Your task to perform on an android device: clear all cookies in the chrome app Image 0: 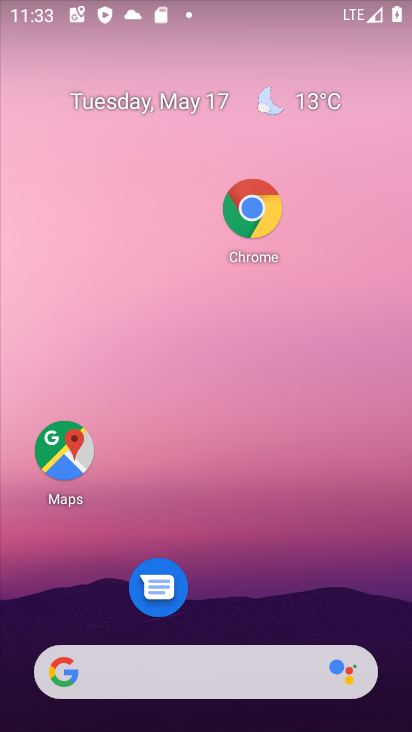
Step 0: click (253, 211)
Your task to perform on an android device: clear all cookies in the chrome app Image 1: 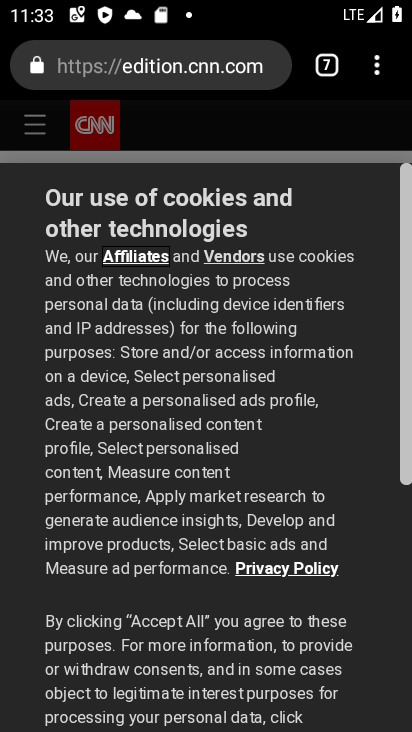
Step 1: click (376, 74)
Your task to perform on an android device: clear all cookies in the chrome app Image 2: 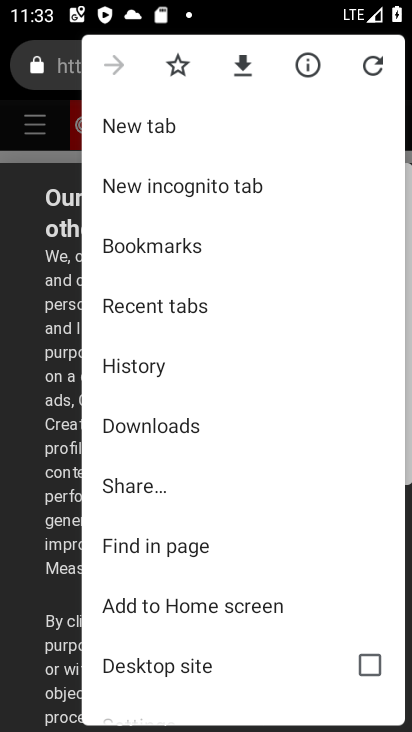
Step 2: drag from (266, 586) to (397, 21)
Your task to perform on an android device: clear all cookies in the chrome app Image 3: 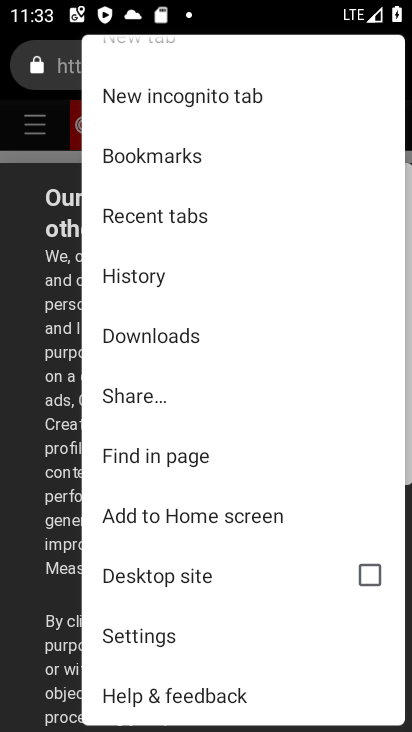
Step 3: click (155, 650)
Your task to perform on an android device: clear all cookies in the chrome app Image 4: 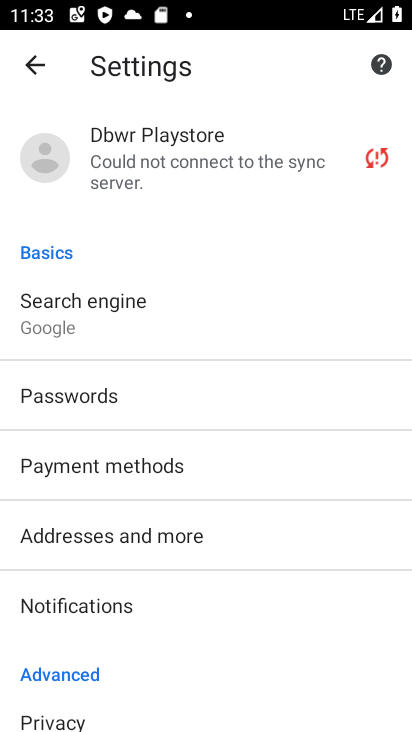
Step 4: drag from (157, 655) to (275, 273)
Your task to perform on an android device: clear all cookies in the chrome app Image 5: 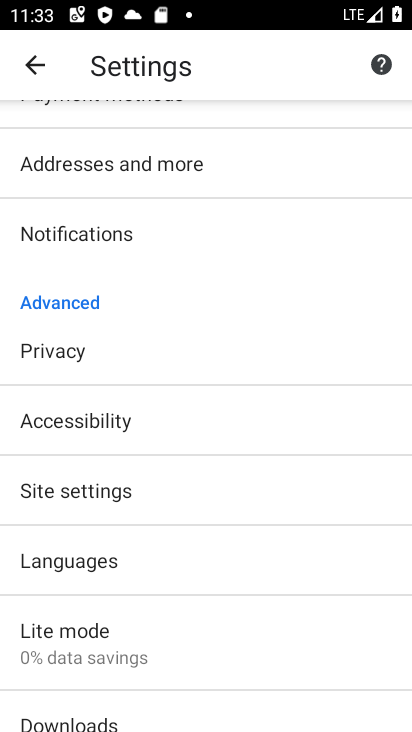
Step 5: click (135, 499)
Your task to perform on an android device: clear all cookies in the chrome app Image 6: 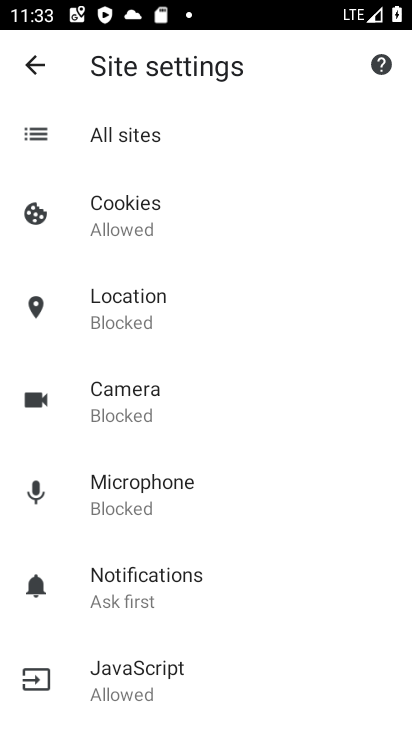
Step 6: click (123, 203)
Your task to perform on an android device: clear all cookies in the chrome app Image 7: 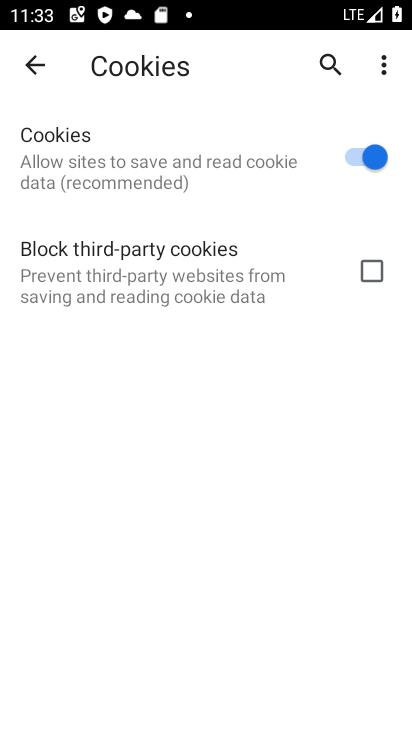
Step 7: click (374, 61)
Your task to perform on an android device: clear all cookies in the chrome app Image 8: 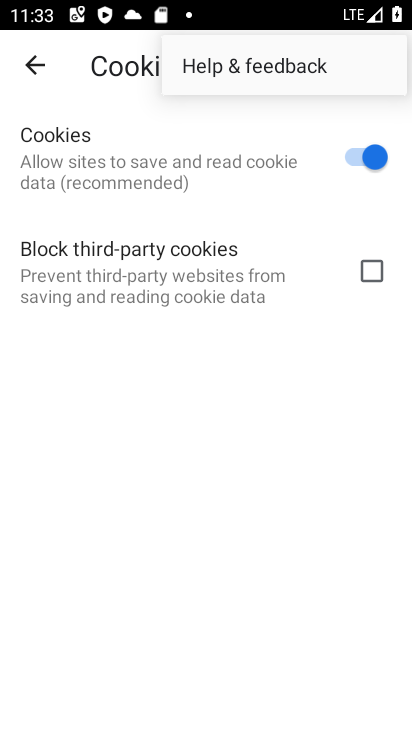
Step 8: press back button
Your task to perform on an android device: clear all cookies in the chrome app Image 9: 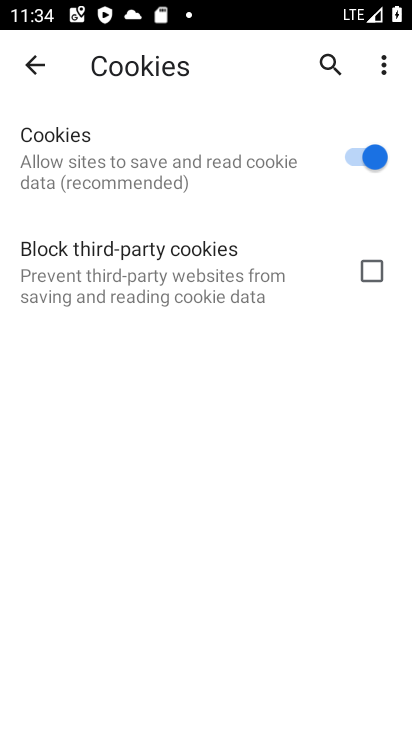
Step 9: press back button
Your task to perform on an android device: clear all cookies in the chrome app Image 10: 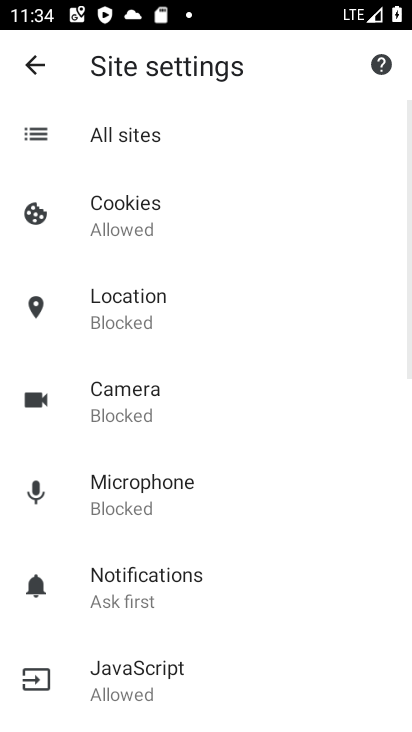
Step 10: press back button
Your task to perform on an android device: clear all cookies in the chrome app Image 11: 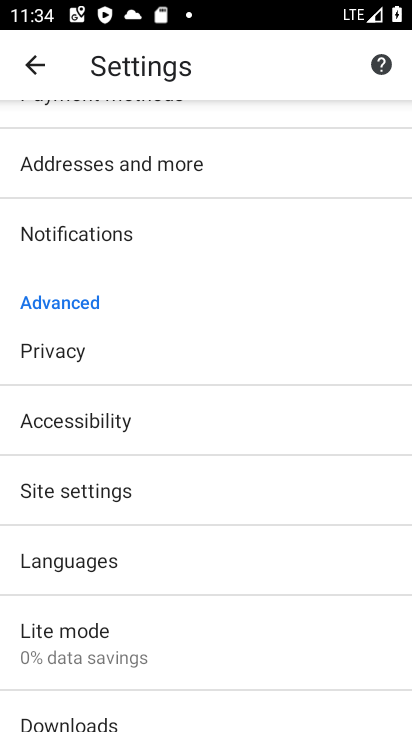
Step 11: drag from (274, 514) to (313, 139)
Your task to perform on an android device: clear all cookies in the chrome app Image 12: 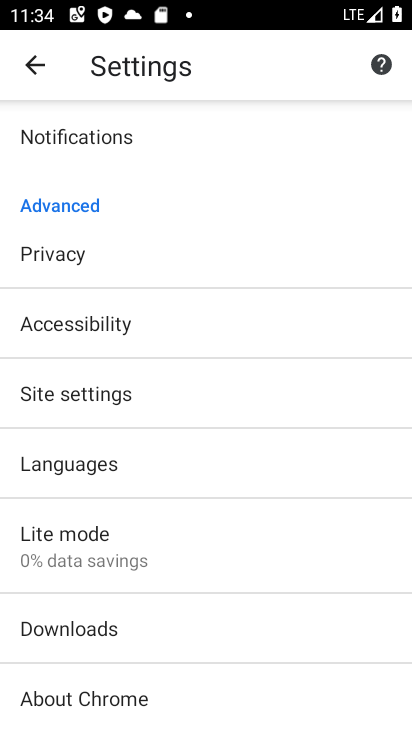
Step 12: drag from (275, 646) to (308, 458)
Your task to perform on an android device: clear all cookies in the chrome app Image 13: 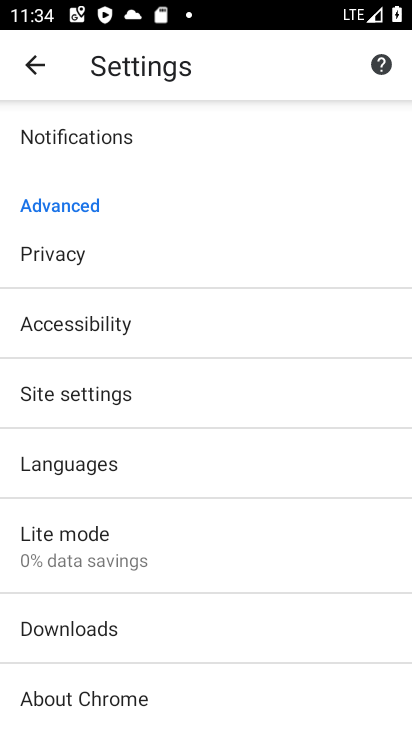
Step 13: drag from (221, 659) to (257, 404)
Your task to perform on an android device: clear all cookies in the chrome app Image 14: 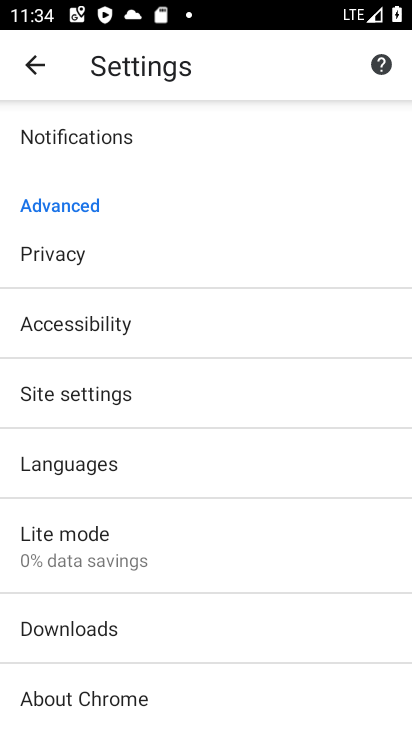
Step 14: click (166, 328)
Your task to perform on an android device: clear all cookies in the chrome app Image 15: 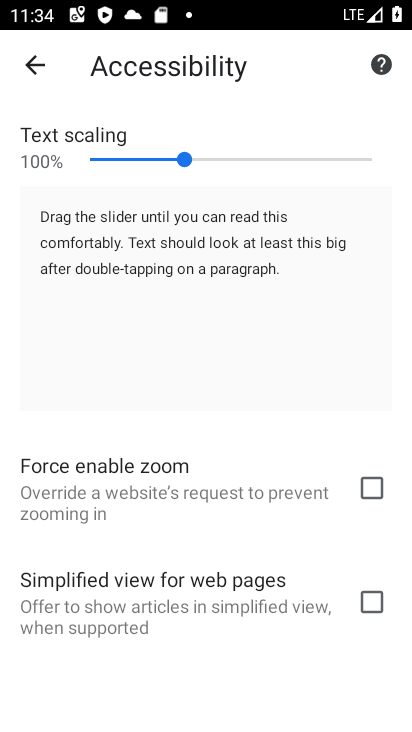
Step 15: drag from (237, 634) to (291, 302)
Your task to perform on an android device: clear all cookies in the chrome app Image 16: 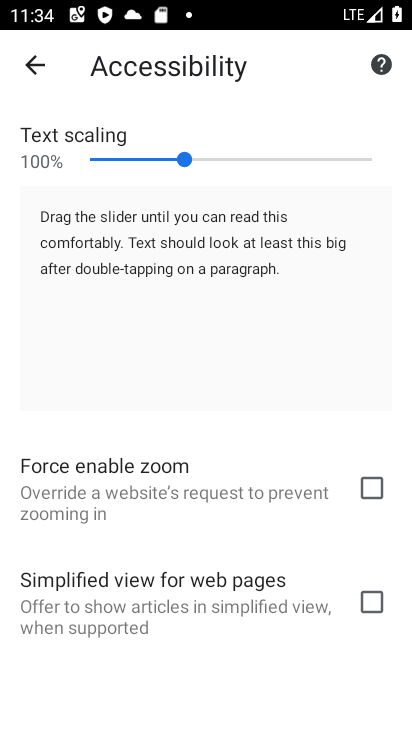
Step 16: press back button
Your task to perform on an android device: clear all cookies in the chrome app Image 17: 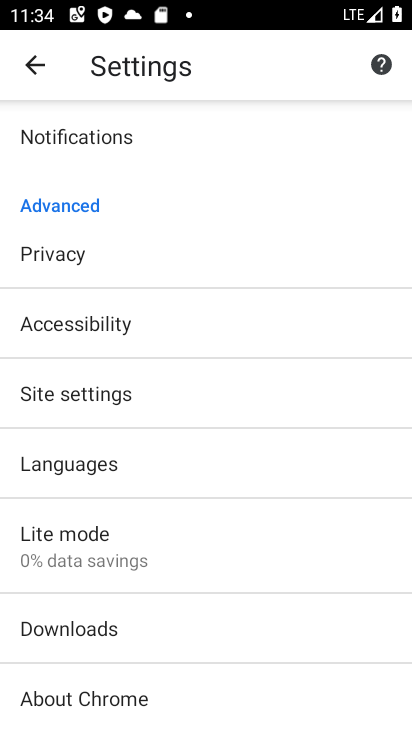
Step 17: click (267, 269)
Your task to perform on an android device: clear all cookies in the chrome app Image 18: 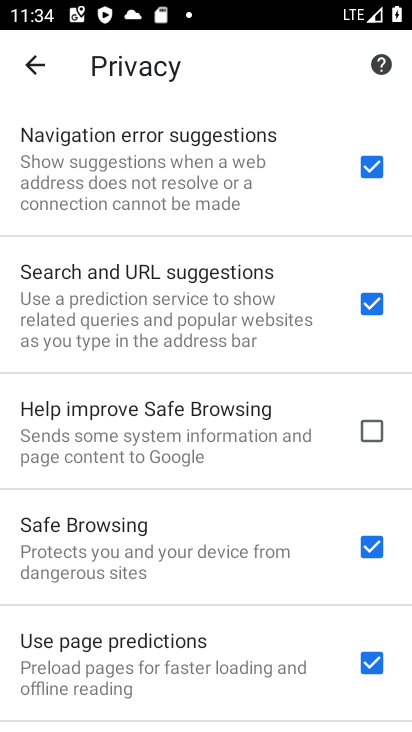
Step 18: drag from (119, 557) to (201, 178)
Your task to perform on an android device: clear all cookies in the chrome app Image 19: 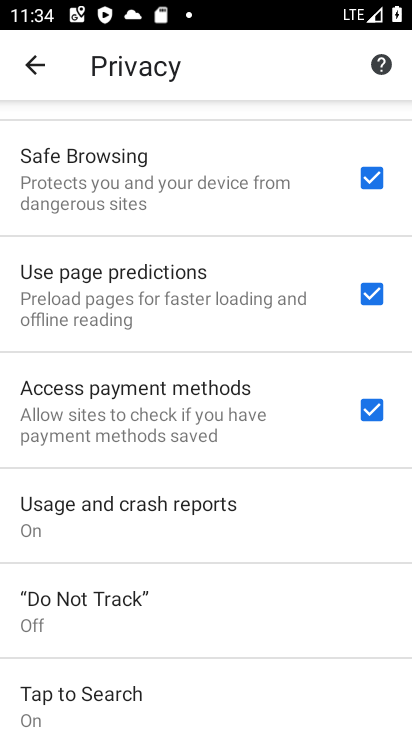
Step 19: drag from (86, 621) to (217, 282)
Your task to perform on an android device: clear all cookies in the chrome app Image 20: 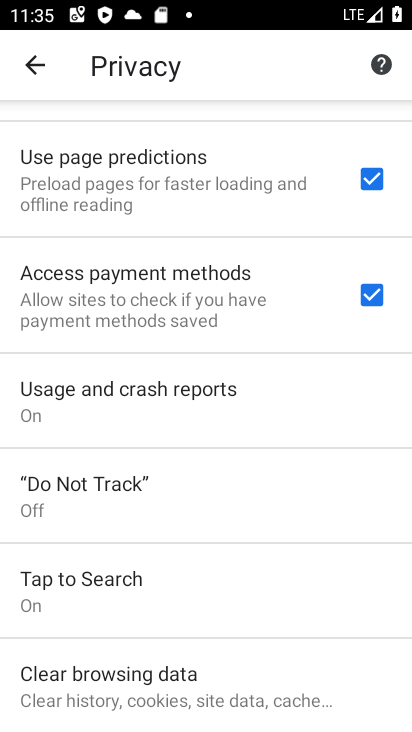
Step 20: click (139, 699)
Your task to perform on an android device: clear all cookies in the chrome app Image 21: 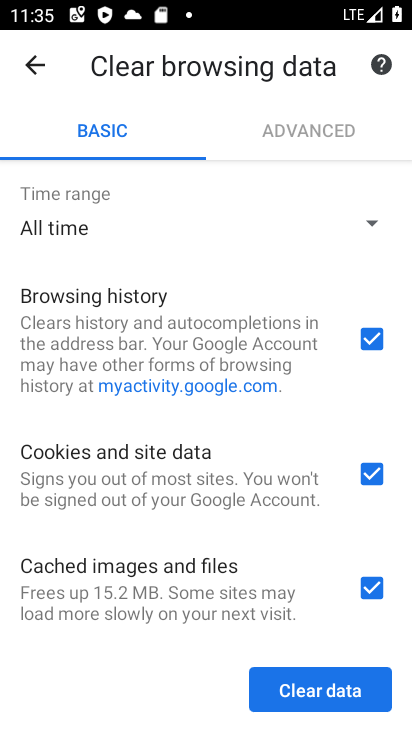
Step 21: drag from (162, 587) to (245, 326)
Your task to perform on an android device: clear all cookies in the chrome app Image 22: 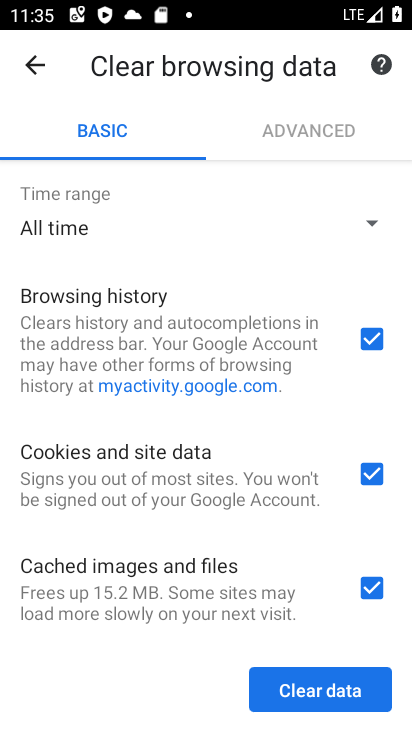
Step 22: click (379, 585)
Your task to perform on an android device: clear all cookies in the chrome app Image 23: 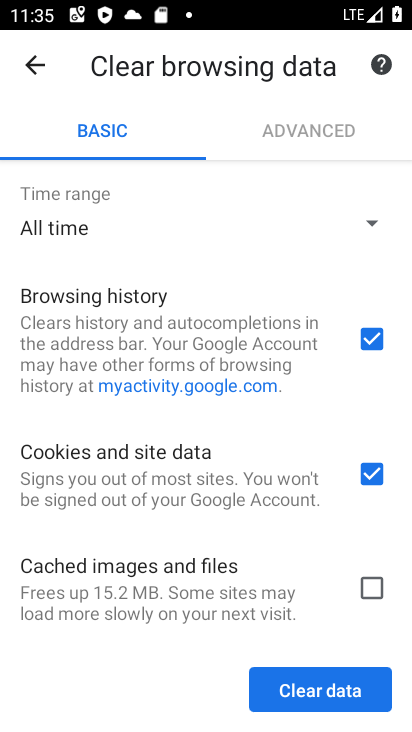
Step 23: click (376, 351)
Your task to perform on an android device: clear all cookies in the chrome app Image 24: 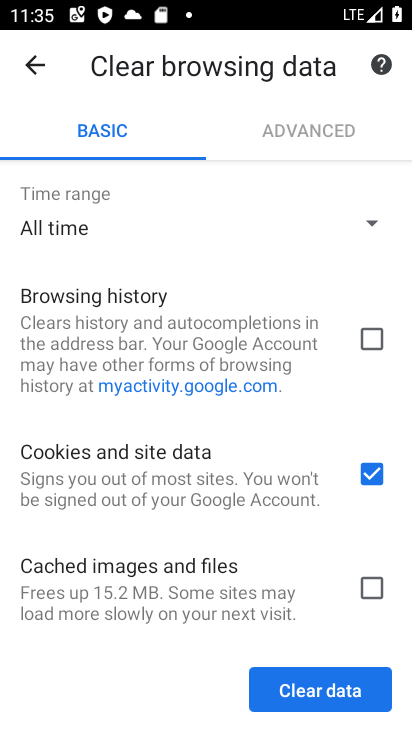
Step 24: click (301, 700)
Your task to perform on an android device: clear all cookies in the chrome app Image 25: 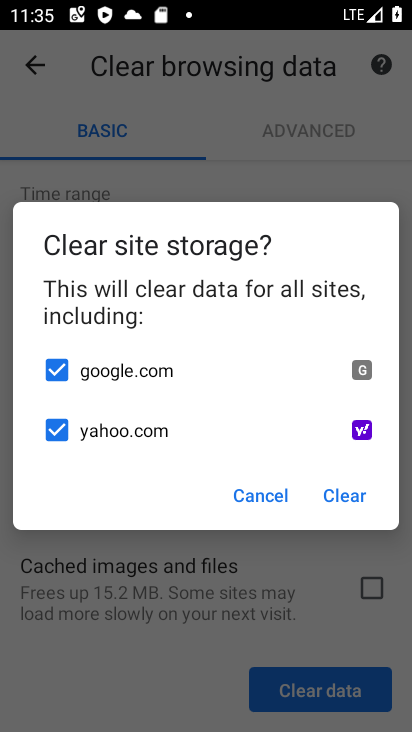
Step 25: click (57, 435)
Your task to perform on an android device: clear all cookies in the chrome app Image 26: 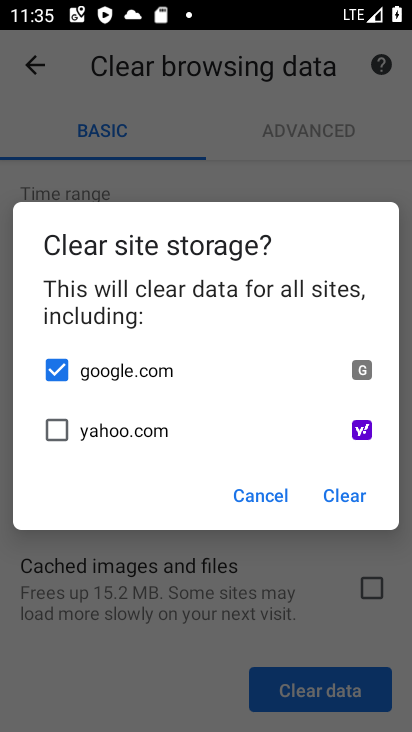
Step 26: click (343, 490)
Your task to perform on an android device: clear all cookies in the chrome app Image 27: 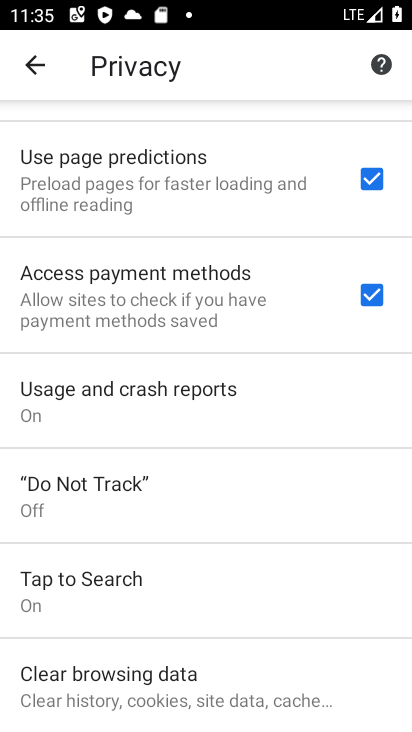
Step 27: task complete